Your task to perform on an android device: Open Youtube and go to the subscriptions tab Image 0: 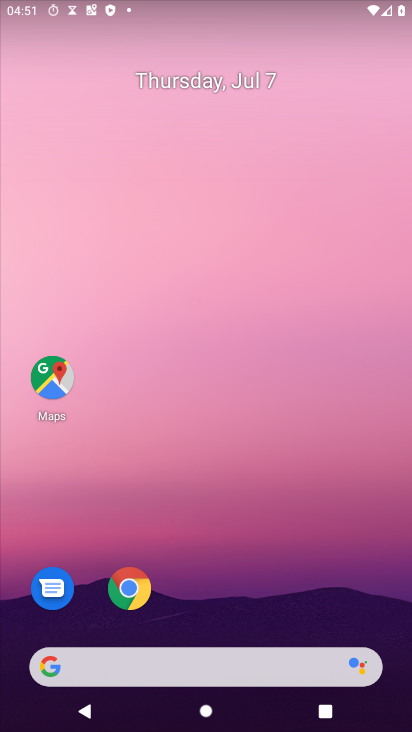
Step 0: press home button
Your task to perform on an android device: Open Youtube and go to the subscriptions tab Image 1: 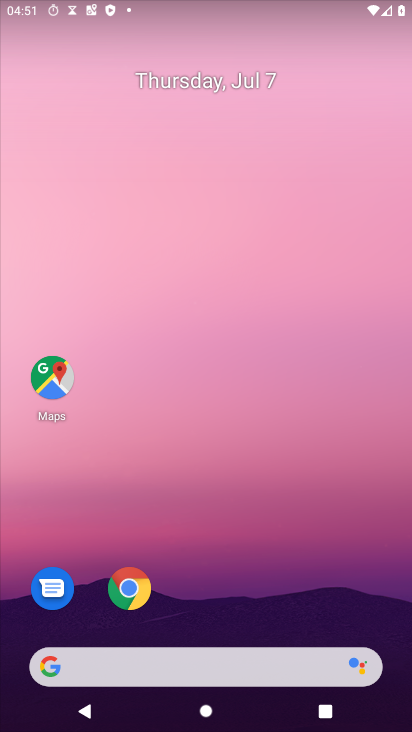
Step 1: drag from (257, 630) to (150, 138)
Your task to perform on an android device: Open Youtube and go to the subscriptions tab Image 2: 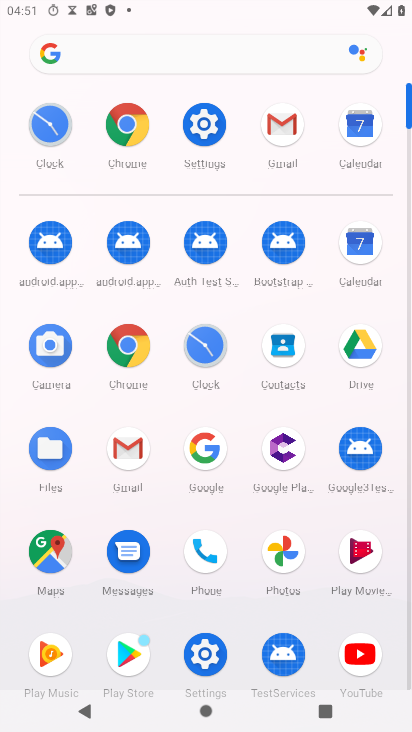
Step 2: click (356, 665)
Your task to perform on an android device: Open Youtube and go to the subscriptions tab Image 3: 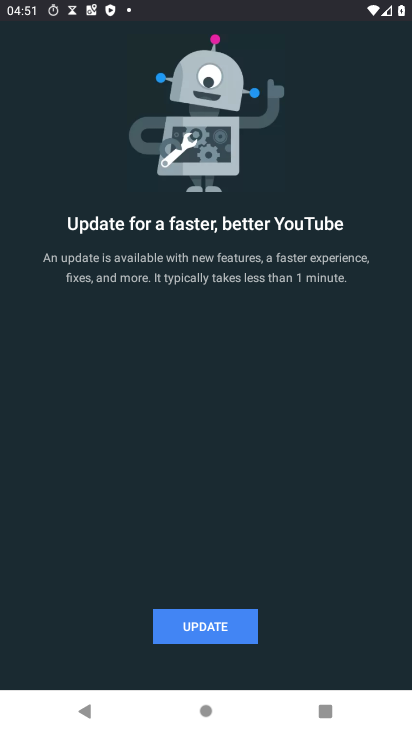
Step 3: click (171, 629)
Your task to perform on an android device: Open Youtube and go to the subscriptions tab Image 4: 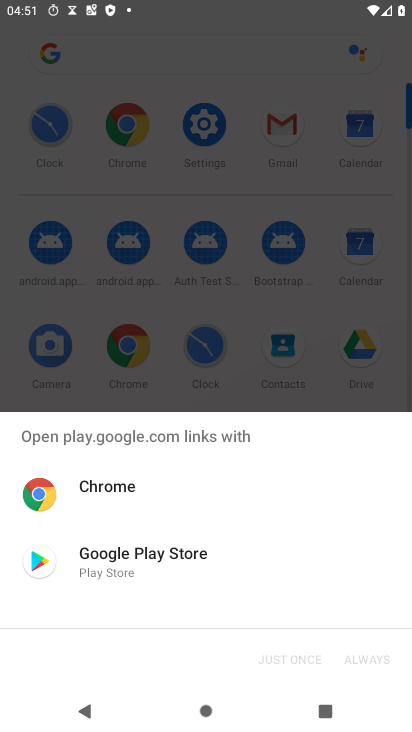
Step 4: click (146, 560)
Your task to perform on an android device: Open Youtube and go to the subscriptions tab Image 5: 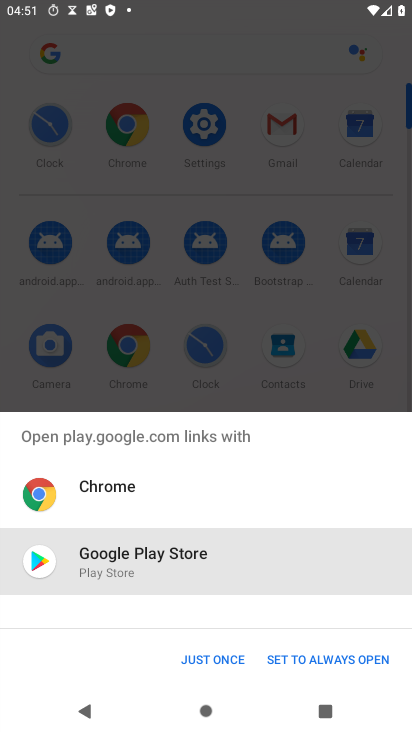
Step 5: click (211, 663)
Your task to perform on an android device: Open Youtube and go to the subscriptions tab Image 6: 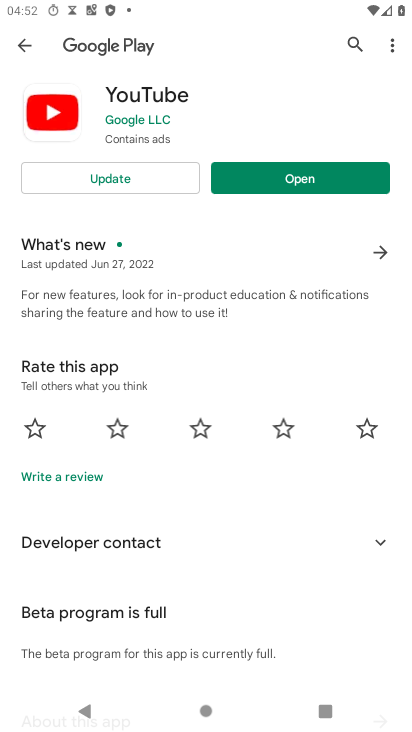
Step 6: click (138, 174)
Your task to perform on an android device: Open Youtube and go to the subscriptions tab Image 7: 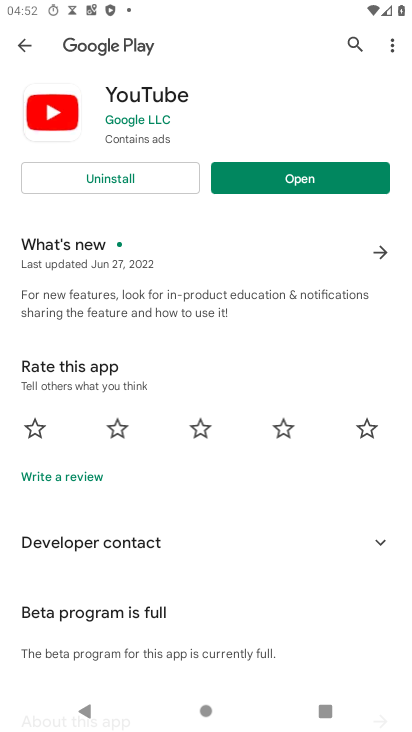
Step 7: click (338, 191)
Your task to perform on an android device: Open Youtube and go to the subscriptions tab Image 8: 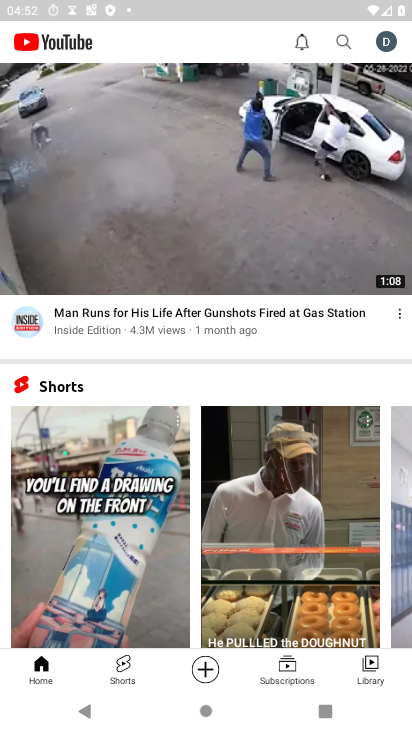
Step 8: click (285, 665)
Your task to perform on an android device: Open Youtube and go to the subscriptions tab Image 9: 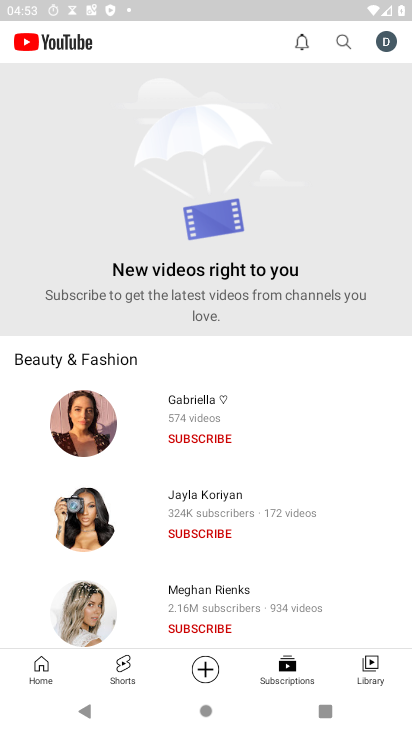
Step 9: task complete